Your task to perform on an android device: Open Google Maps Image 0: 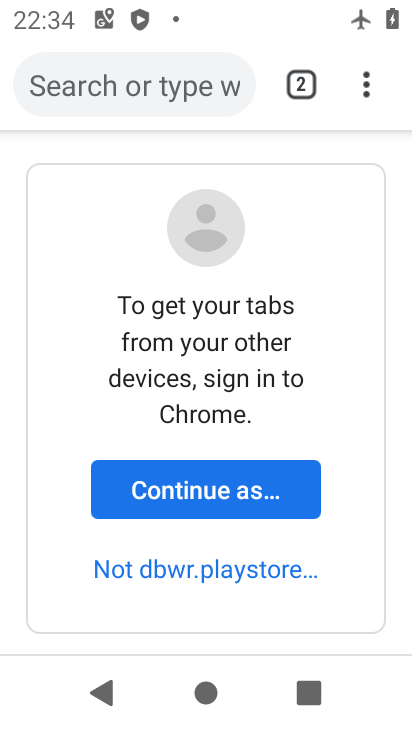
Step 0: drag from (234, 534) to (237, 354)
Your task to perform on an android device: Open Google Maps Image 1: 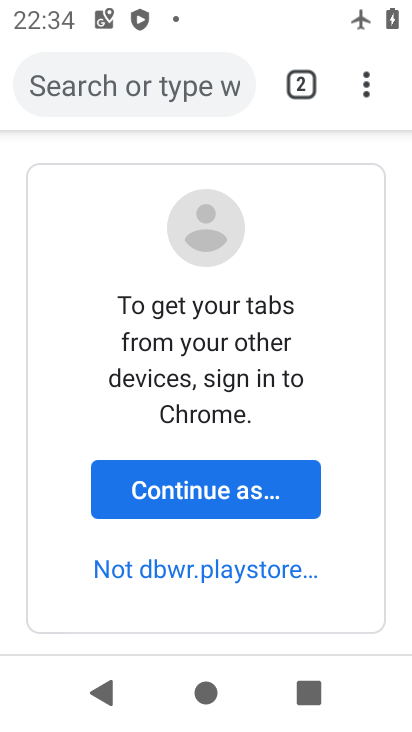
Step 1: press home button
Your task to perform on an android device: Open Google Maps Image 2: 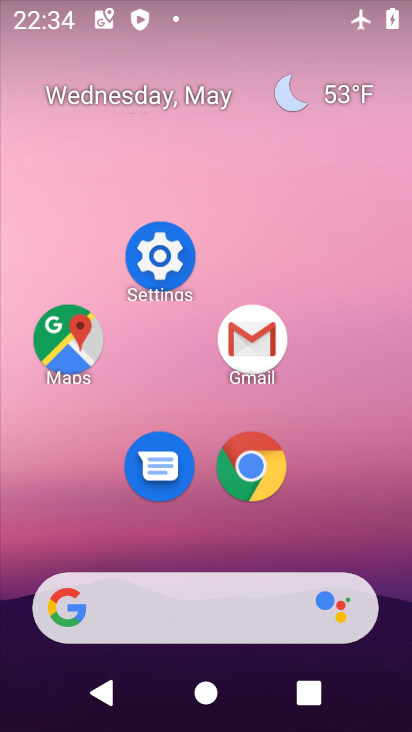
Step 2: drag from (212, 546) to (0, 19)
Your task to perform on an android device: Open Google Maps Image 3: 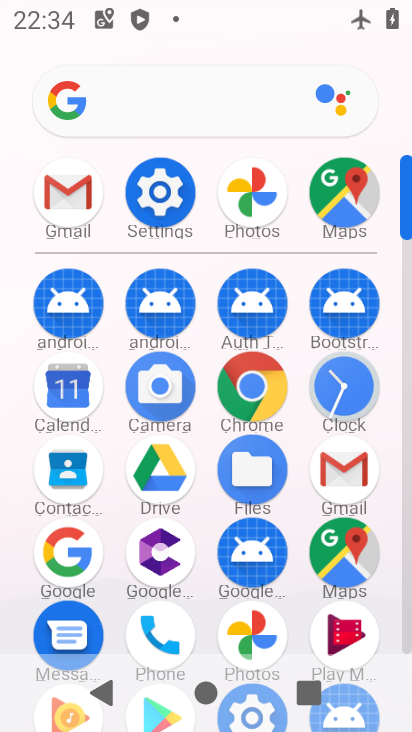
Step 3: click (343, 528)
Your task to perform on an android device: Open Google Maps Image 4: 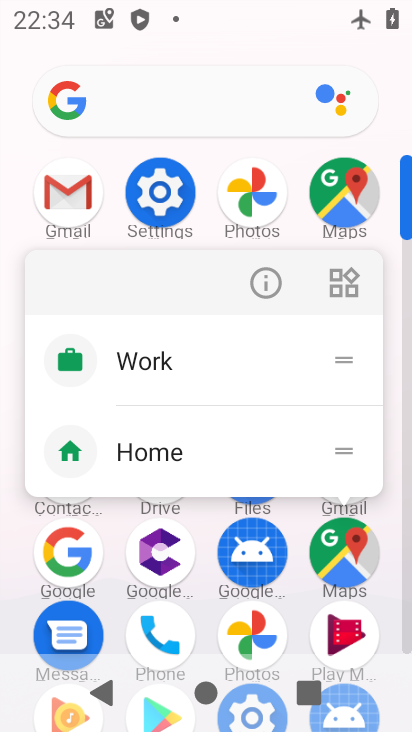
Step 4: click (253, 293)
Your task to perform on an android device: Open Google Maps Image 5: 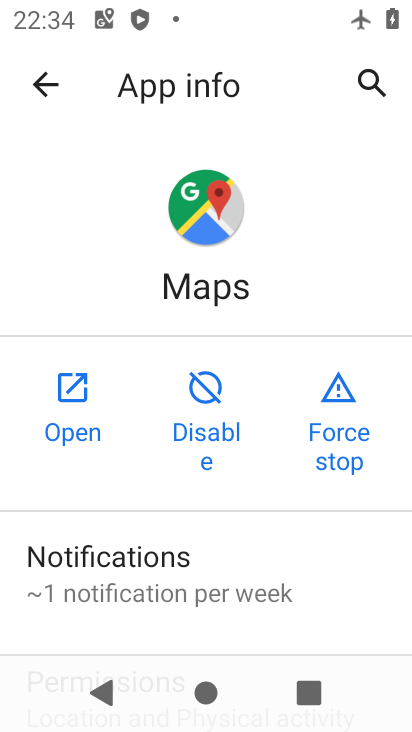
Step 5: click (59, 407)
Your task to perform on an android device: Open Google Maps Image 6: 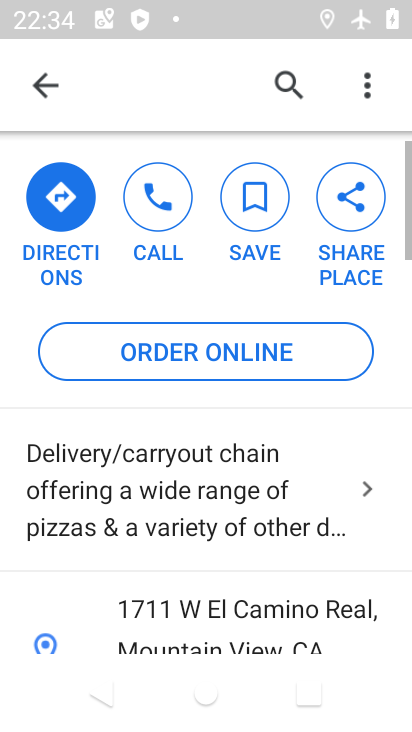
Step 6: task complete